Your task to perform on an android device: turn off javascript in the chrome app Image 0: 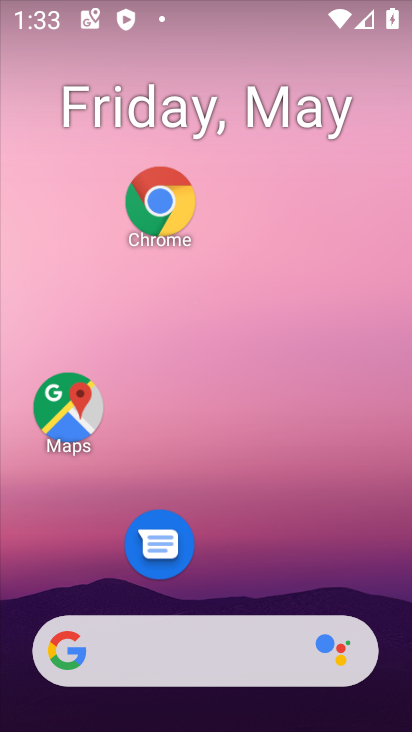
Step 0: click (164, 234)
Your task to perform on an android device: turn off javascript in the chrome app Image 1: 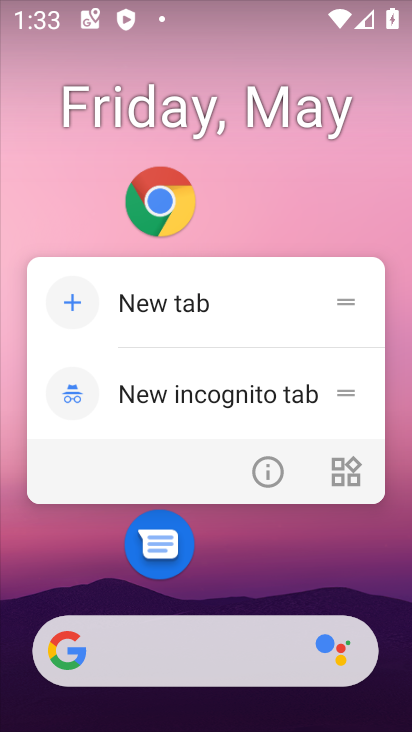
Step 1: click (266, 476)
Your task to perform on an android device: turn off javascript in the chrome app Image 2: 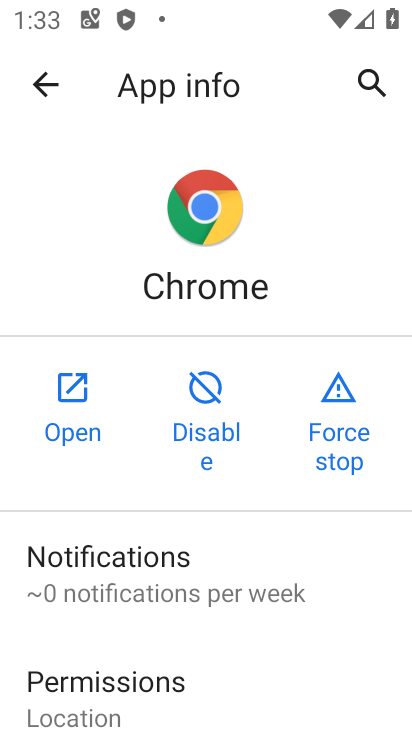
Step 2: click (87, 415)
Your task to perform on an android device: turn off javascript in the chrome app Image 3: 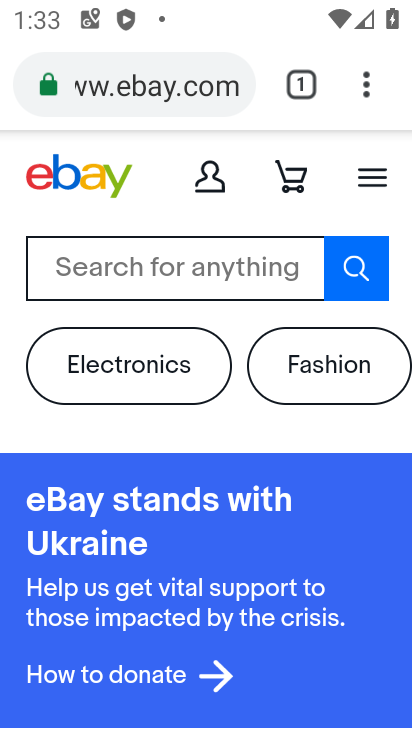
Step 3: click (372, 101)
Your task to perform on an android device: turn off javascript in the chrome app Image 4: 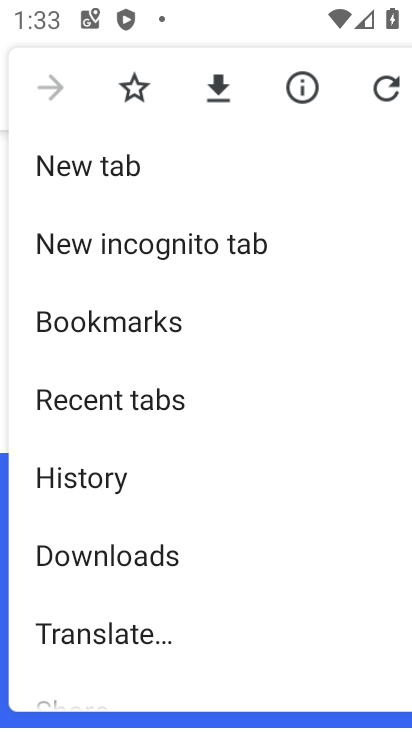
Step 4: drag from (225, 500) to (223, 199)
Your task to perform on an android device: turn off javascript in the chrome app Image 5: 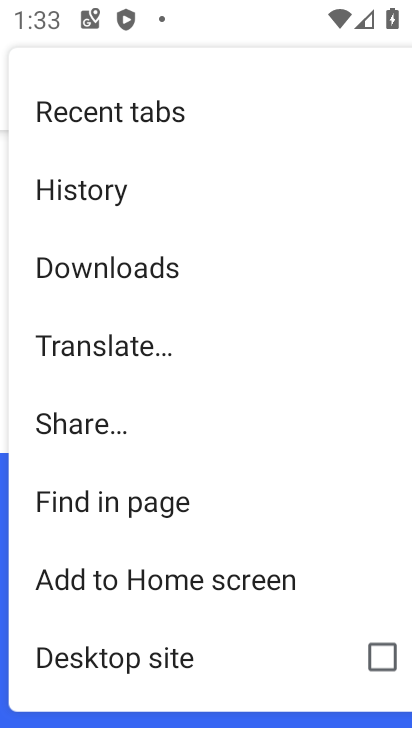
Step 5: drag from (167, 537) to (175, 239)
Your task to perform on an android device: turn off javascript in the chrome app Image 6: 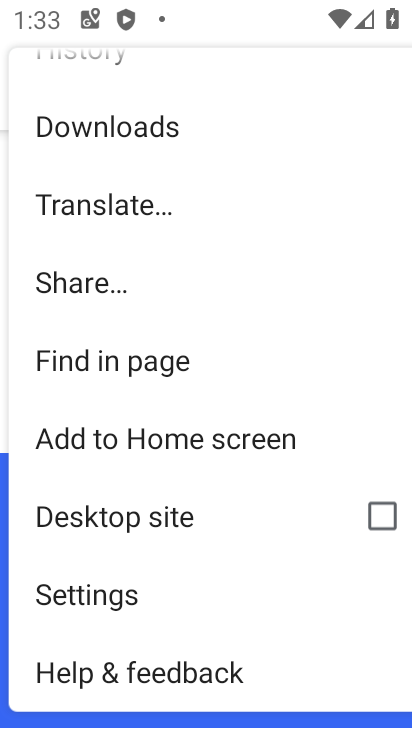
Step 6: click (132, 601)
Your task to perform on an android device: turn off javascript in the chrome app Image 7: 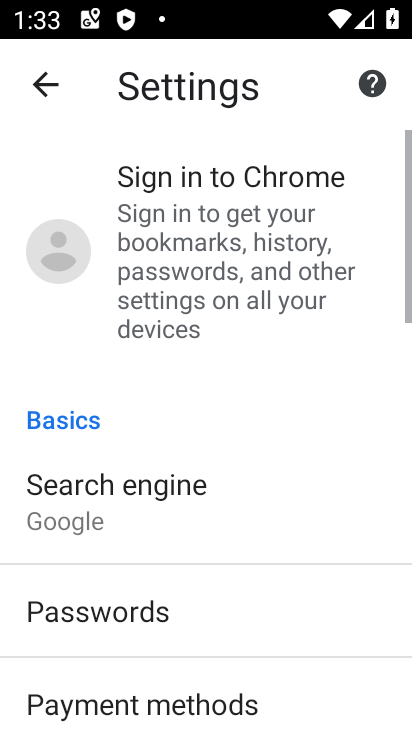
Step 7: drag from (143, 542) to (156, 178)
Your task to perform on an android device: turn off javascript in the chrome app Image 8: 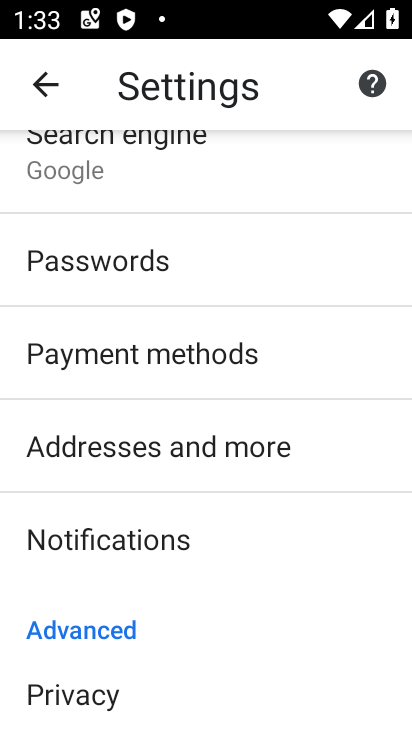
Step 8: drag from (173, 571) to (164, 266)
Your task to perform on an android device: turn off javascript in the chrome app Image 9: 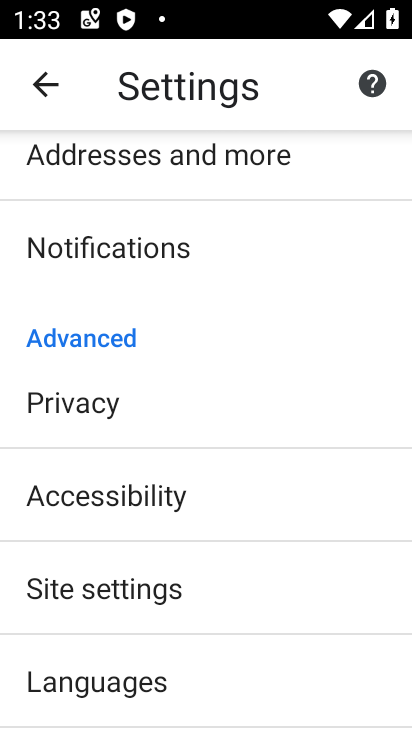
Step 9: click (155, 591)
Your task to perform on an android device: turn off javascript in the chrome app Image 10: 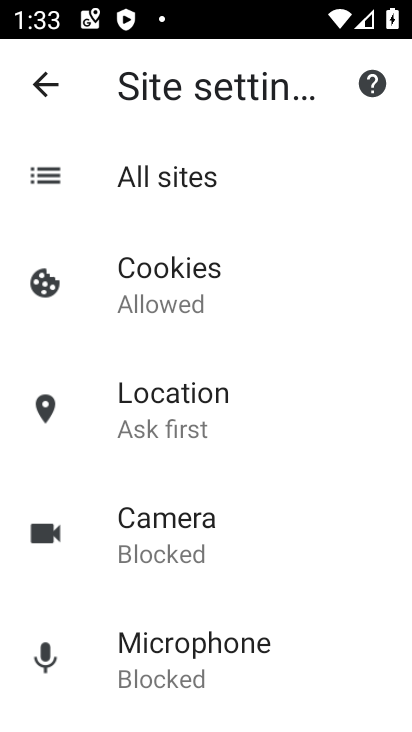
Step 10: drag from (176, 567) to (191, 156)
Your task to perform on an android device: turn off javascript in the chrome app Image 11: 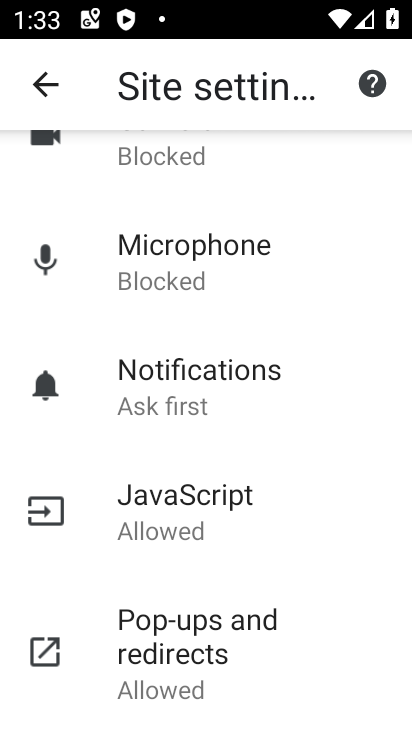
Step 11: click (226, 525)
Your task to perform on an android device: turn off javascript in the chrome app Image 12: 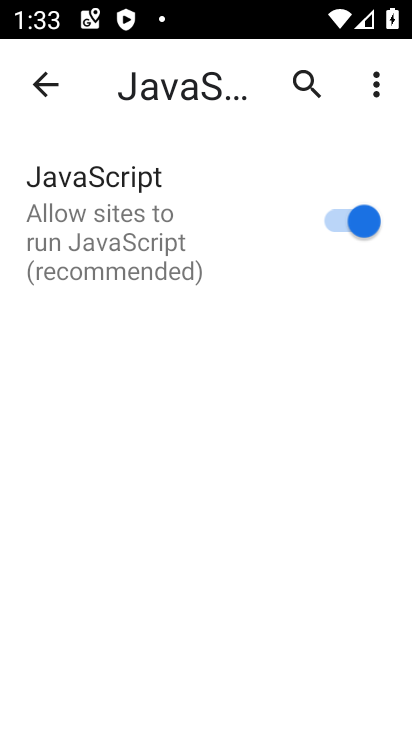
Step 12: click (335, 211)
Your task to perform on an android device: turn off javascript in the chrome app Image 13: 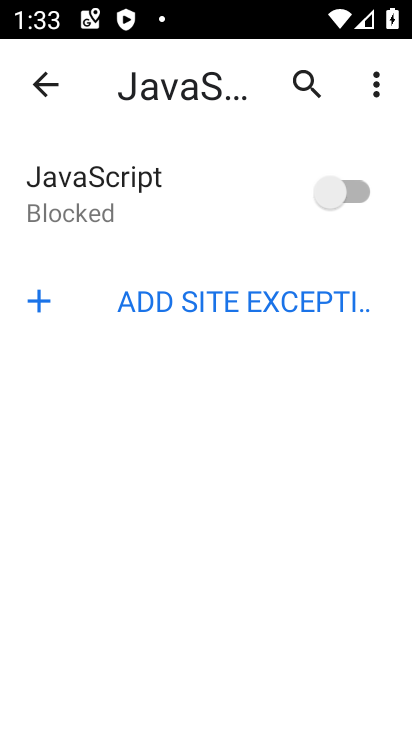
Step 13: task complete